Your task to perform on an android device: open device folders in google photos Image 0: 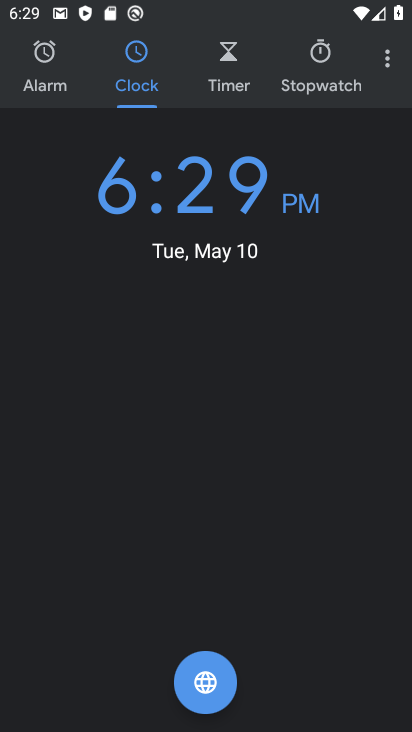
Step 0: press home button
Your task to perform on an android device: open device folders in google photos Image 1: 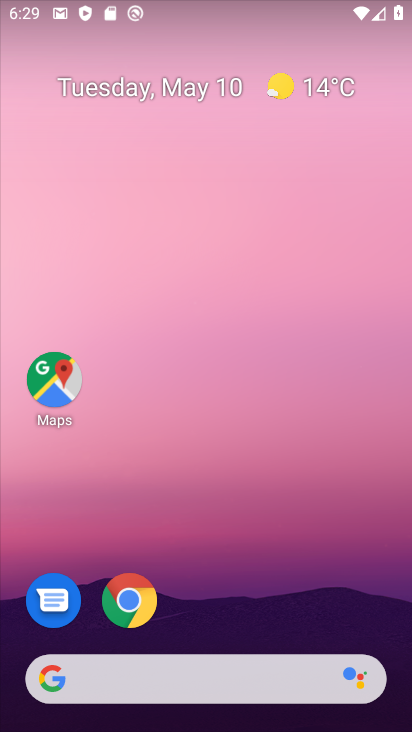
Step 1: drag from (230, 594) to (144, 189)
Your task to perform on an android device: open device folders in google photos Image 2: 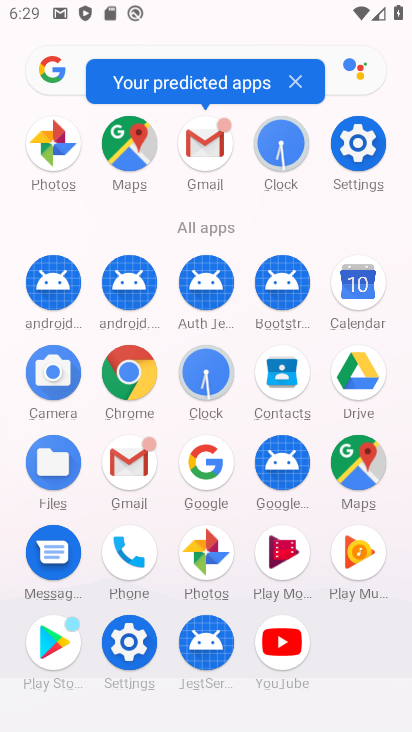
Step 2: click (48, 138)
Your task to perform on an android device: open device folders in google photos Image 3: 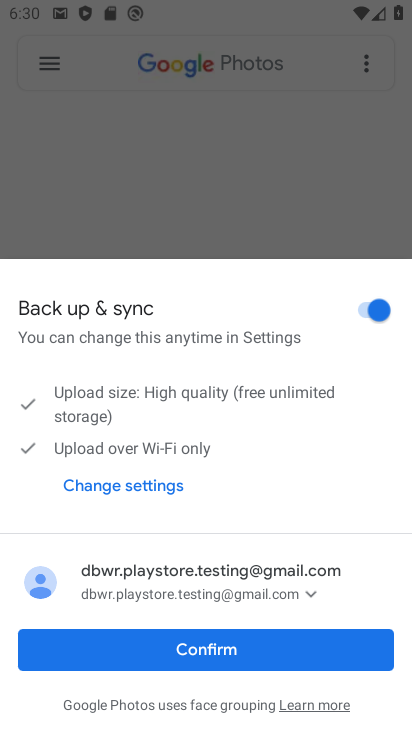
Step 3: click (231, 642)
Your task to perform on an android device: open device folders in google photos Image 4: 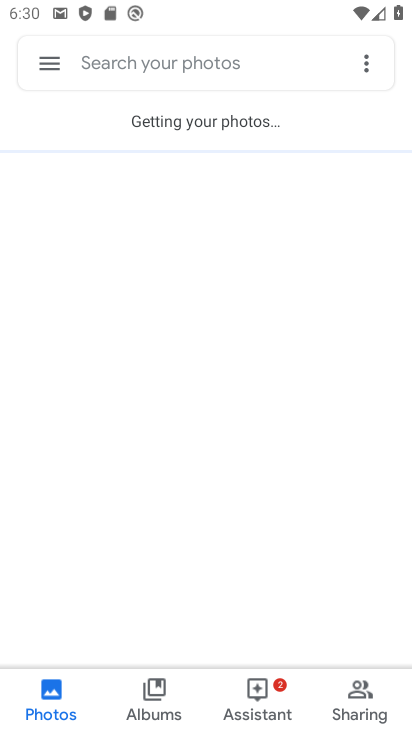
Step 4: click (143, 136)
Your task to perform on an android device: open device folders in google photos Image 5: 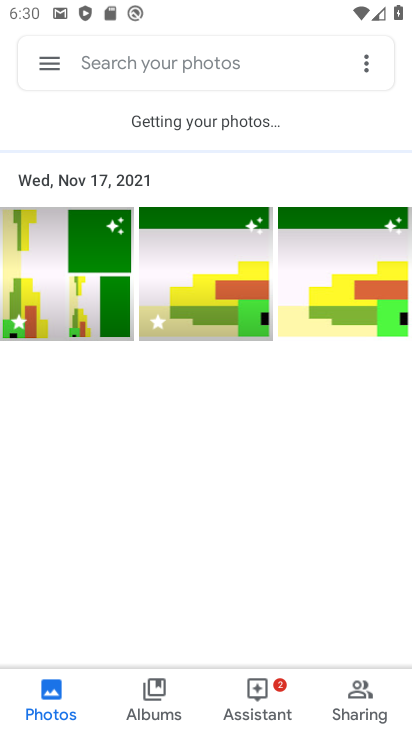
Step 5: click (46, 70)
Your task to perform on an android device: open device folders in google photos Image 6: 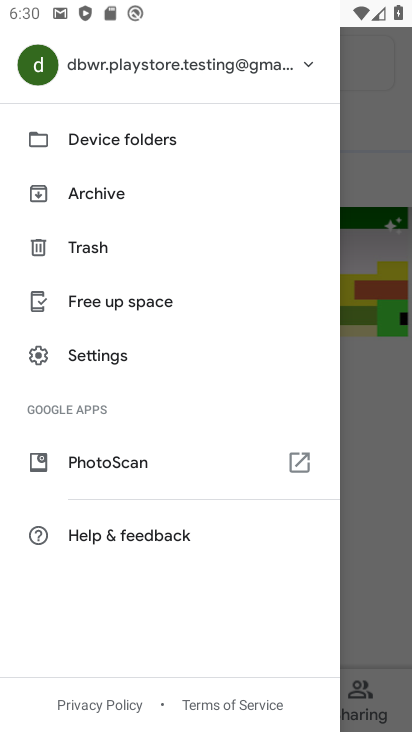
Step 6: click (104, 133)
Your task to perform on an android device: open device folders in google photos Image 7: 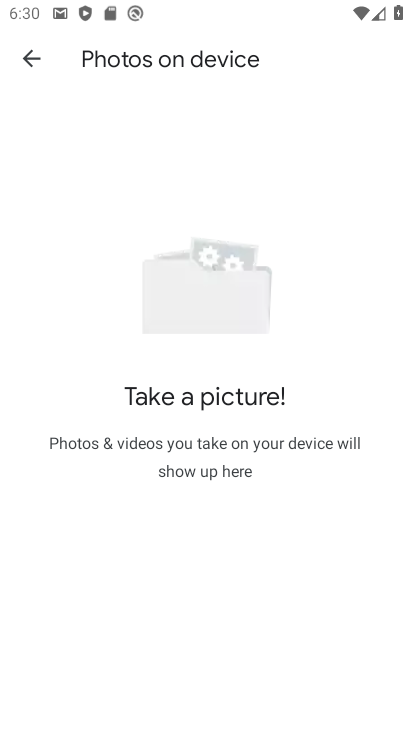
Step 7: task complete